Your task to perform on an android device: turn off data saver in the chrome app Image 0: 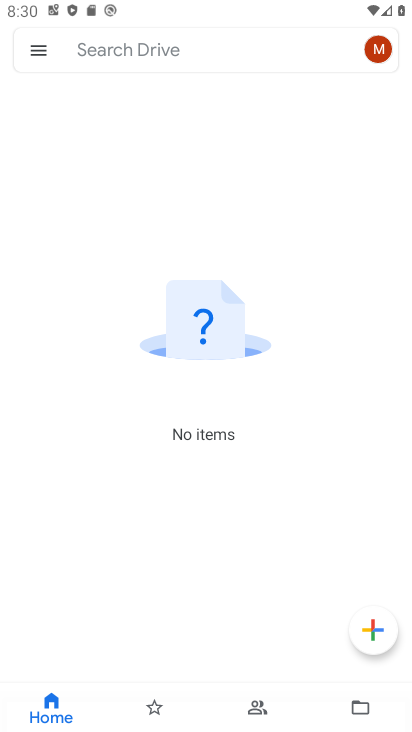
Step 0: press home button
Your task to perform on an android device: turn off data saver in the chrome app Image 1: 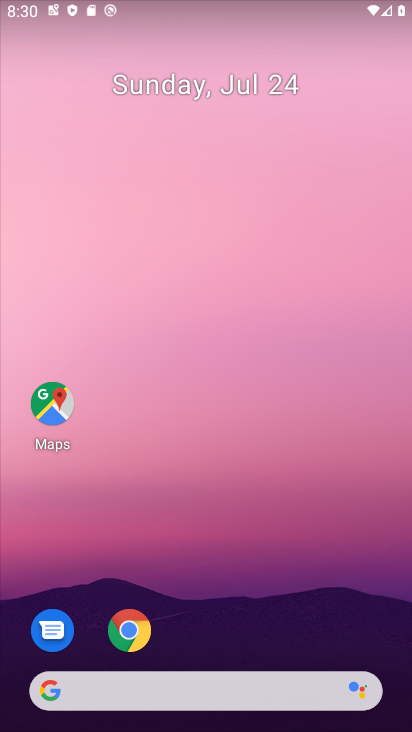
Step 1: click (129, 623)
Your task to perform on an android device: turn off data saver in the chrome app Image 2: 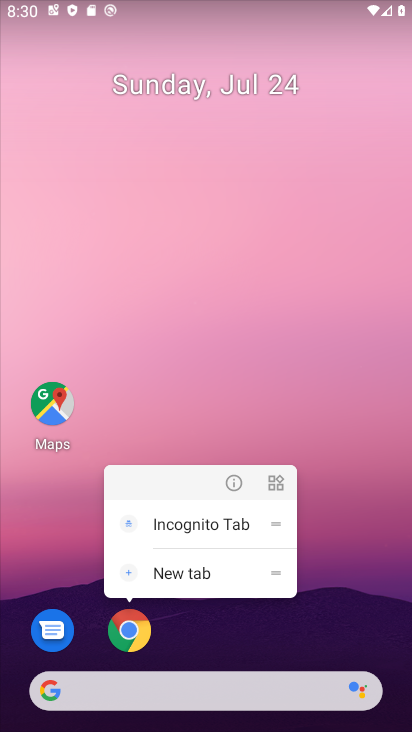
Step 2: click (133, 632)
Your task to perform on an android device: turn off data saver in the chrome app Image 3: 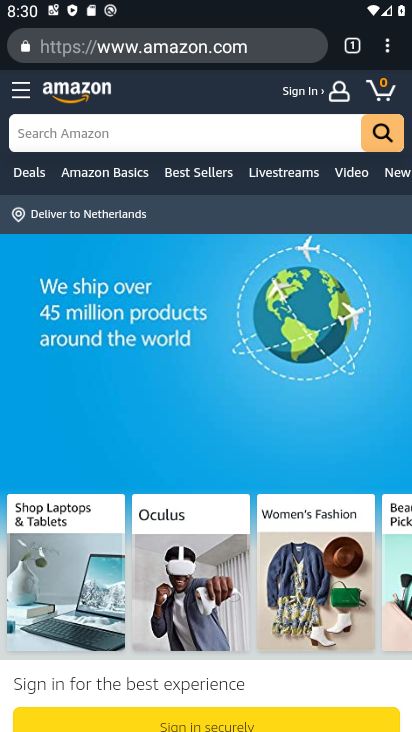
Step 3: click (391, 54)
Your task to perform on an android device: turn off data saver in the chrome app Image 4: 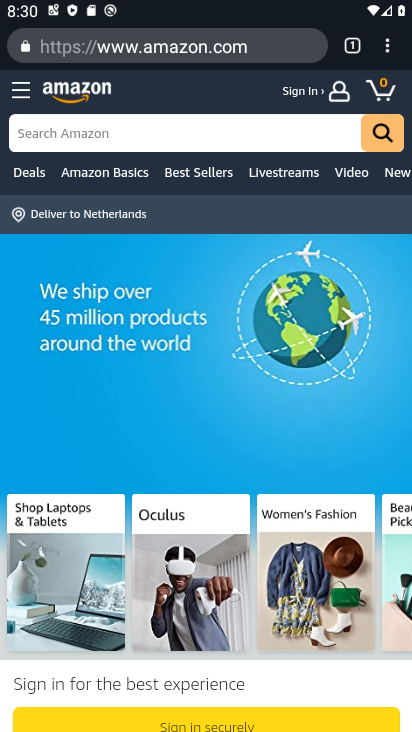
Step 4: drag from (386, 43) to (240, 543)
Your task to perform on an android device: turn off data saver in the chrome app Image 5: 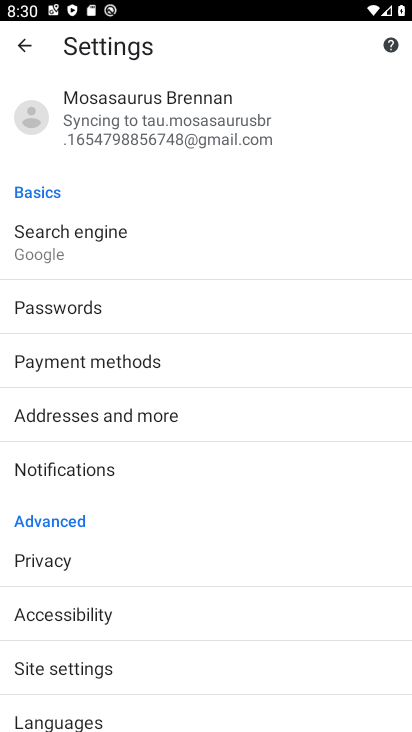
Step 5: drag from (213, 665) to (211, 230)
Your task to perform on an android device: turn off data saver in the chrome app Image 6: 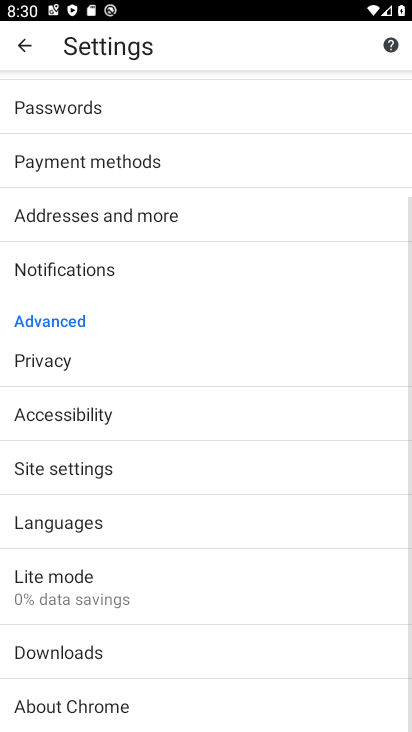
Step 6: click (131, 592)
Your task to perform on an android device: turn off data saver in the chrome app Image 7: 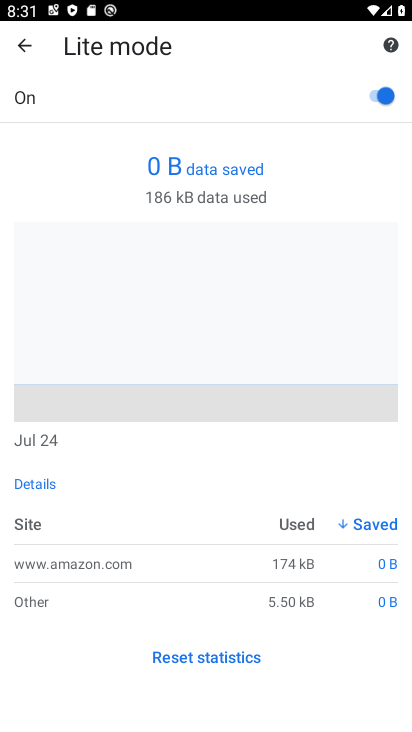
Step 7: click (376, 92)
Your task to perform on an android device: turn off data saver in the chrome app Image 8: 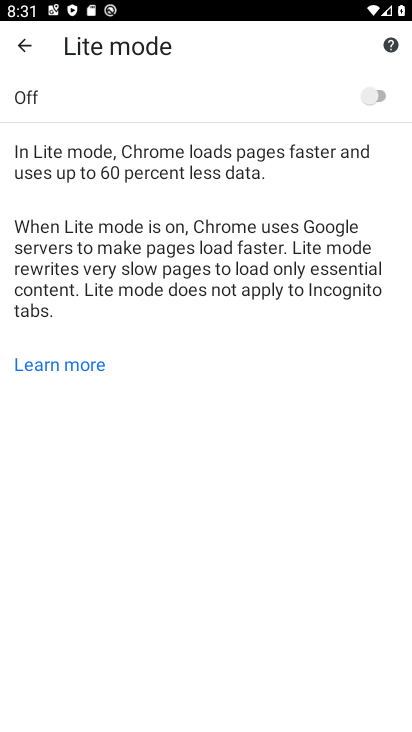
Step 8: task complete